Your task to perform on an android device: Is it going to rain today? Image 0: 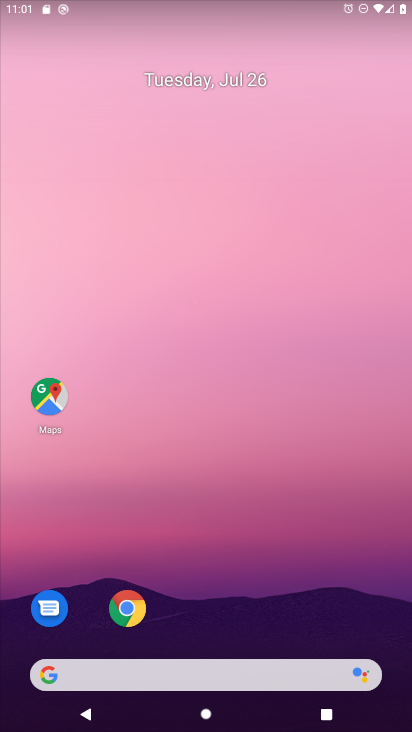
Step 0: drag from (289, 610) to (322, 63)
Your task to perform on an android device: Is it going to rain today? Image 1: 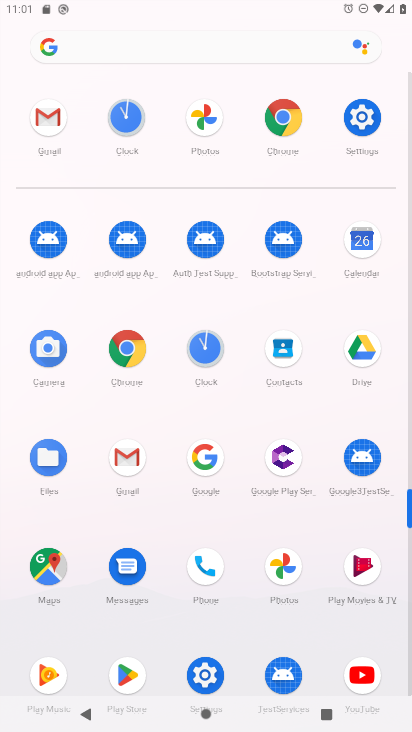
Step 1: click (124, 350)
Your task to perform on an android device: Is it going to rain today? Image 2: 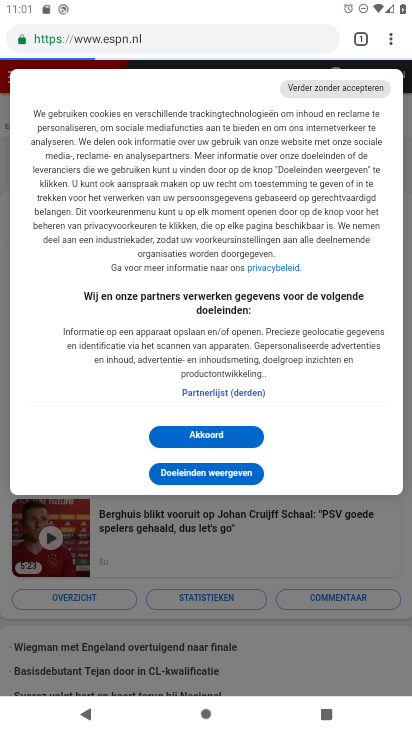
Step 2: click (208, 29)
Your task to perform on an android device: Is it going to rain today? Image 3: 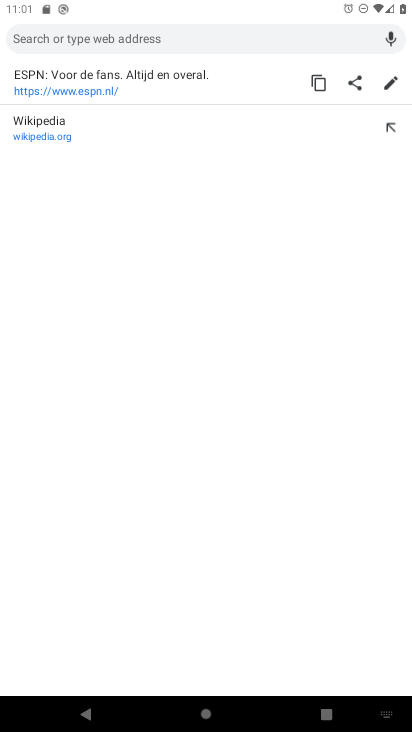
Step 3: type "weather"
Your task to perform on an android device: Is it going to rain today? Image 4: 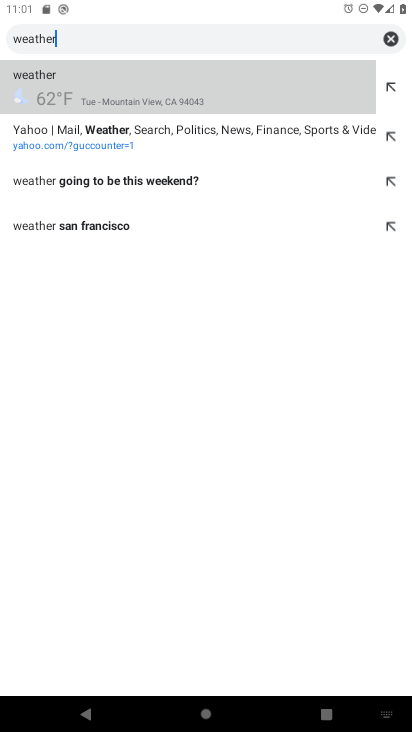
Step 4: click (70, 105)
Your task to perform on an android device: Is it going to rain today? Image 5: 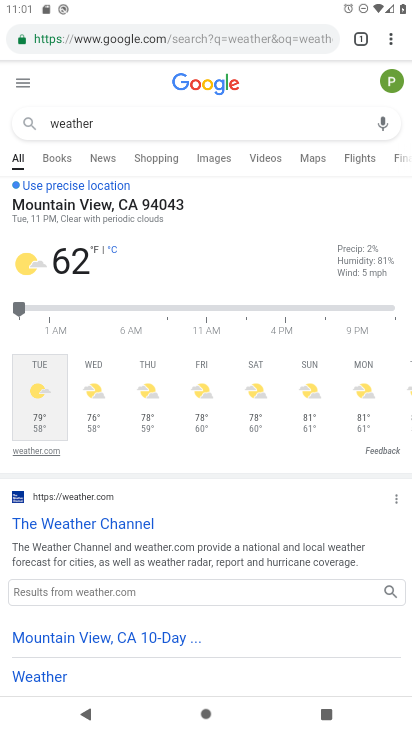
Step 5: task complete